Your task to perform on an android device: turn on sleep mode Image 0: 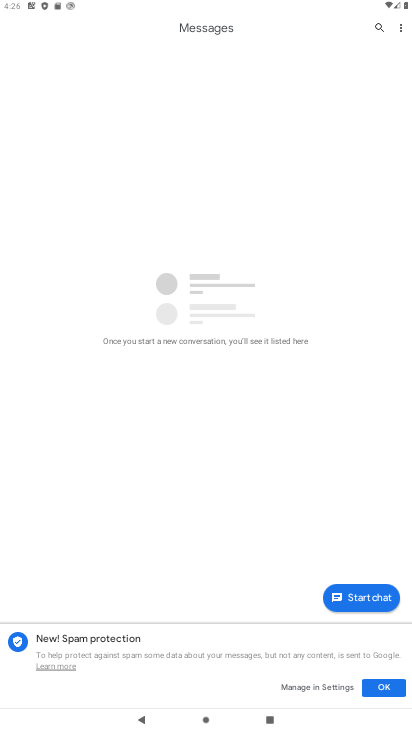
Step 0: drag from (165, 665) to (187, 204)
Your task to perform on an android device: turn on sleep mode Image 1: 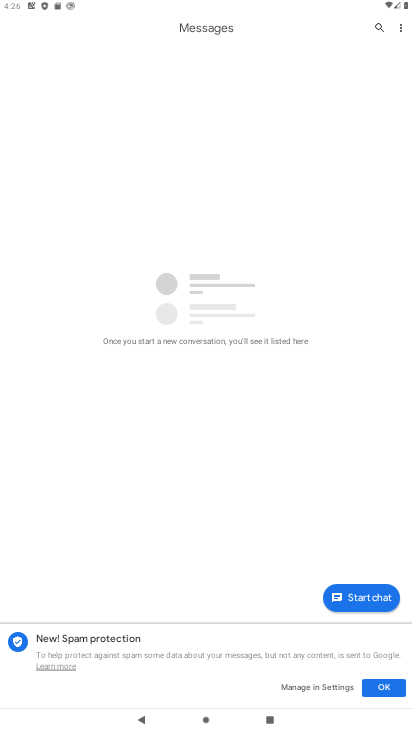
Step 1: press home button
Your task to perform on an android device: turn on sleep mode Image 2: 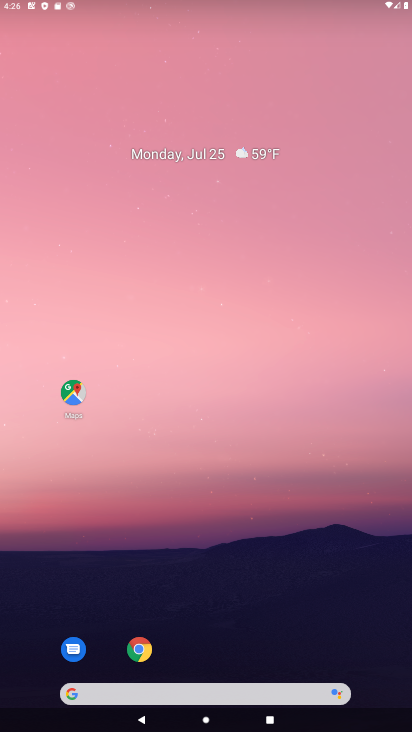
Step 2: drag from (279, 645) to (307, 0)
Your task to perform on an android device: turn on sleep mode Image 3: 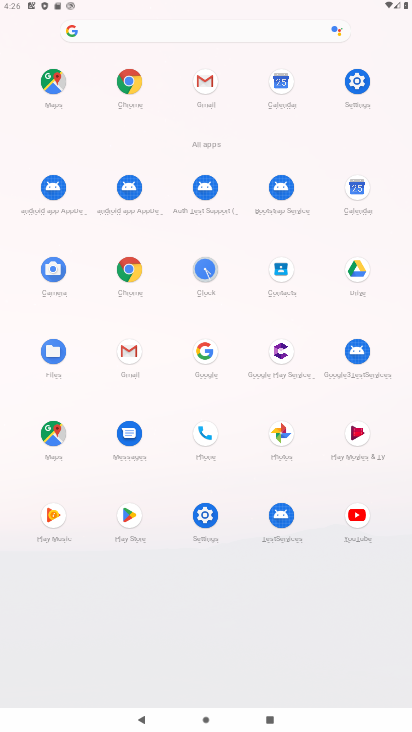
Step 3: click (369, 87)
Your task to perform on an android device: turn on sleep mode Image 4: 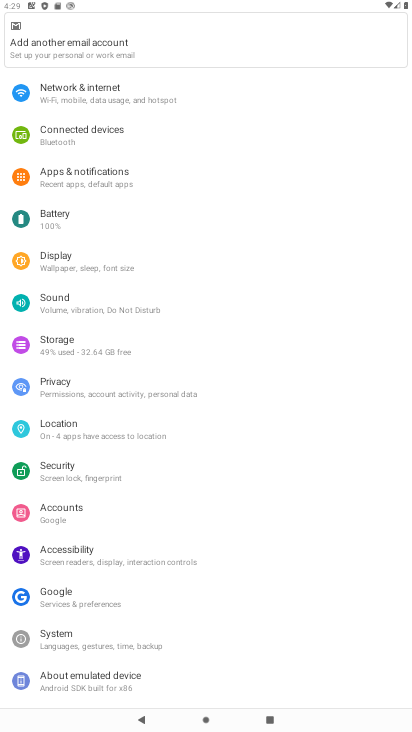
Step 4: click (85, 259)
Your task to perform on an android device: turn on sleep mode Image 5: 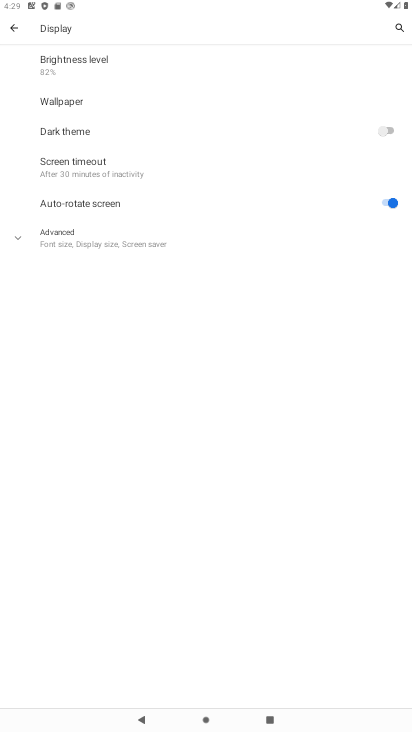
Step 5: click (73, 165)
Your task to perform on an android device: turn on sleep mode Image 6: 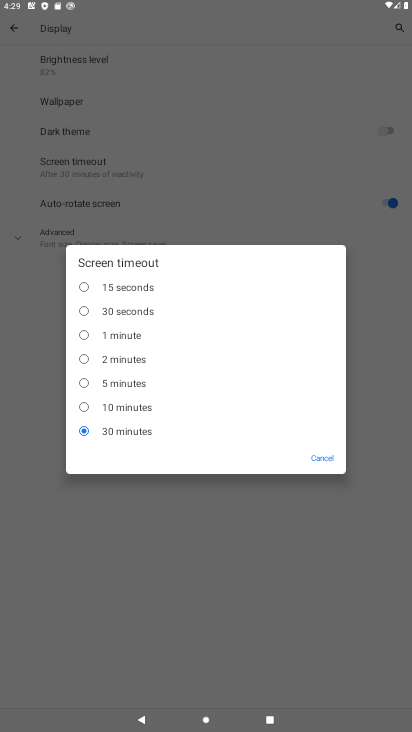
Step 6: task complete